Your task to perform on an android device: Go to CNN.com Image 0: 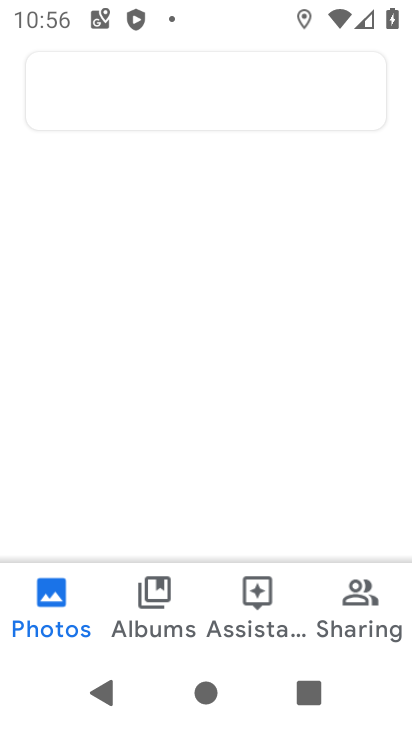
Step 0: press home button
Your task to perform on an android device: Go to CNN.com Image 1: 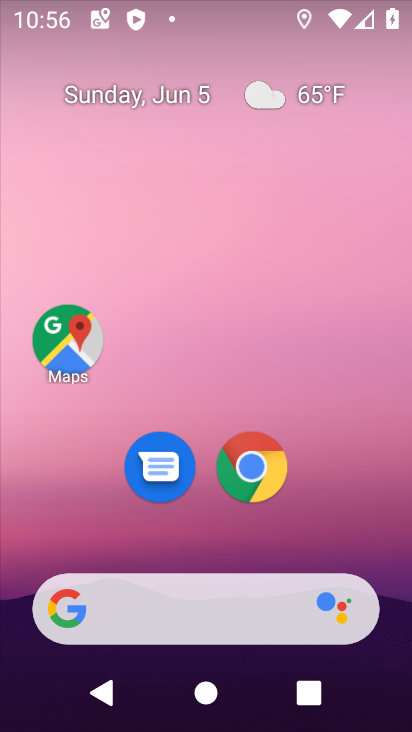
Step 1: drag from (290, 542) to (353, 168)
Your task to perform on an android device: Go to CNN.com Image 2: 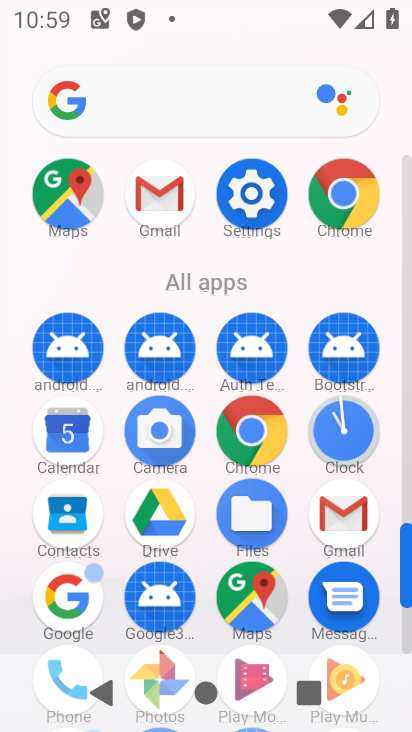
Step 2: click (251, 427)
Your task to perform on an android device: Go to CNN.com Image 3: 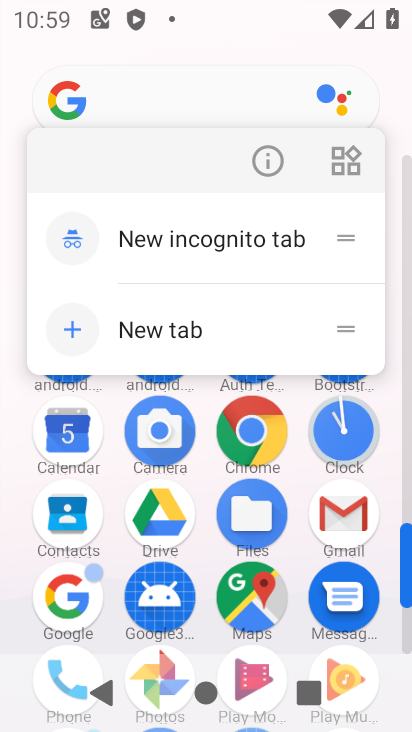
Step 3: click (256, 98)
Your task to perform on an android device: Go to CNN.com Image 4: 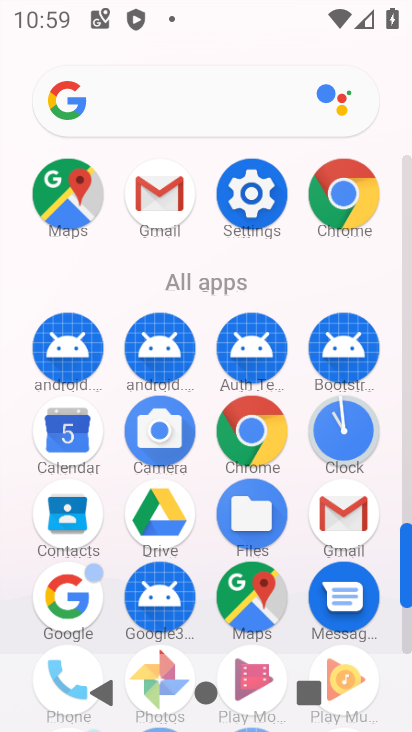
Step 4: click (321, 209)
Your task to perform on an android device: Go to CNN.com Image 5: 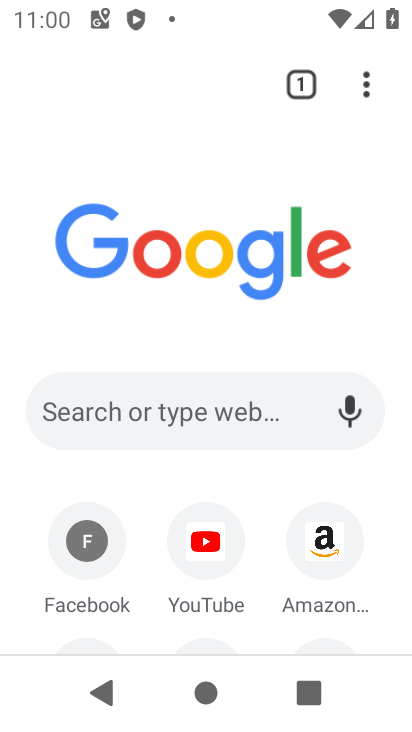
Step 5: click (128, 427)
Your task to perform on an android device: Go to CNN.com Image 6: 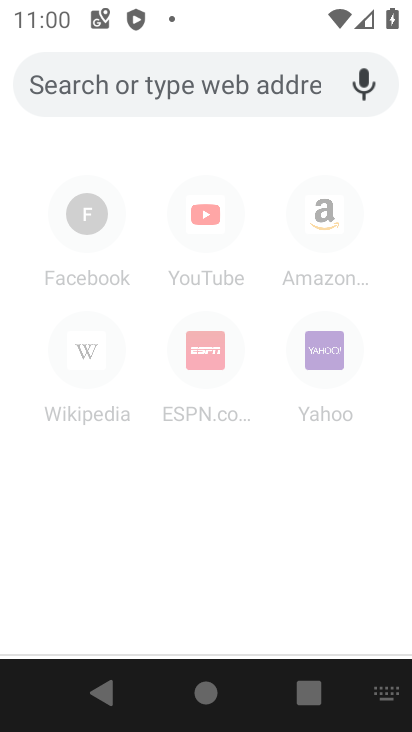
Step 6: click (148, 413)
Your task to perform on an android device: Go to CNN.com Image 7: 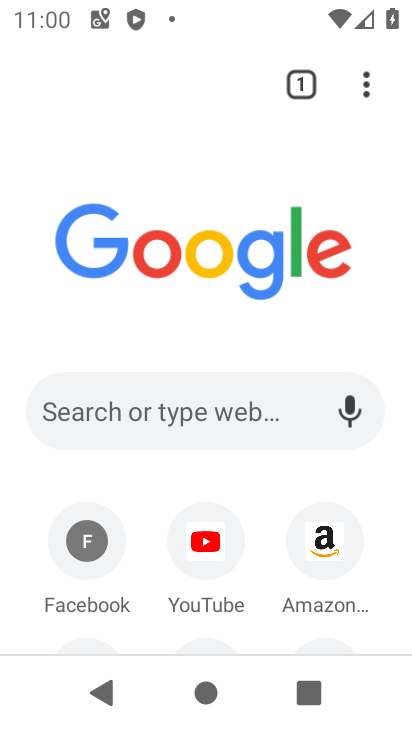
Step 7: click (231, 411)
Your task to perform on an android device: Go to CNN.com Image 8: 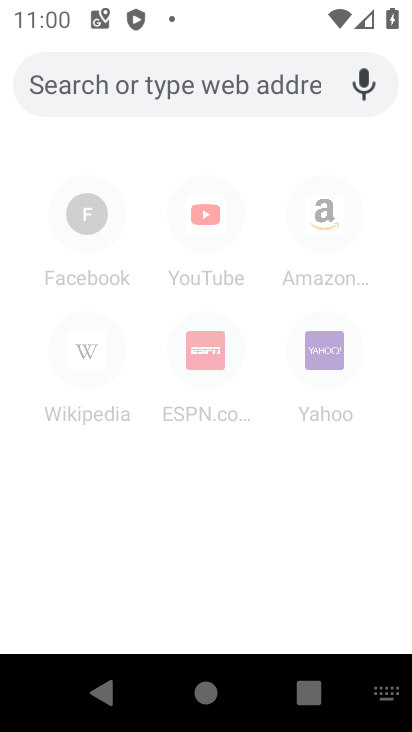
Step 8: type " CNN.com"
Your task to perform on an android device: Go to CNN.com Image 9: 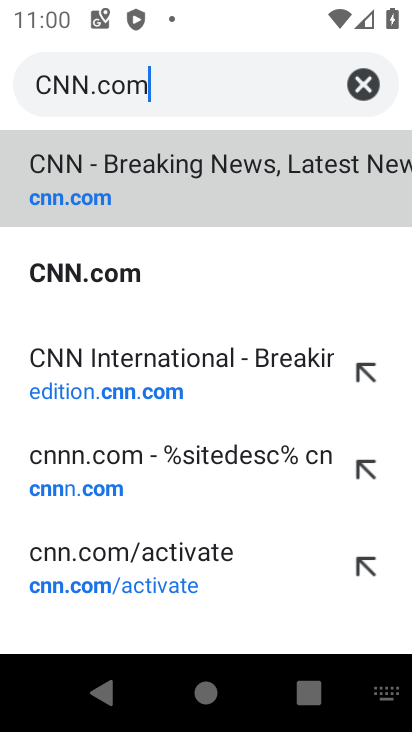
Step 9: type ""
Your task to perform on an android device: Go to CNN.com Image 10: 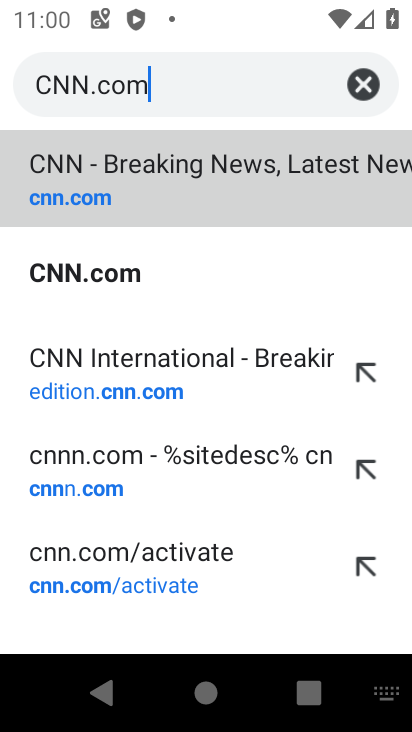
Step 10: click (144, 167)
Your task to perform on an android device: Go to CNN.com Image 11: 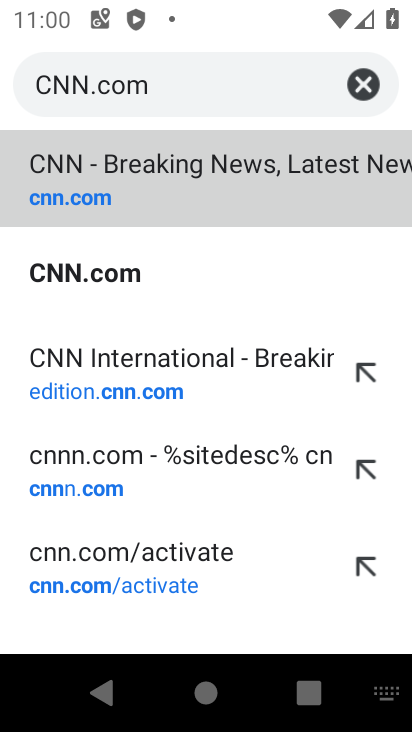
Step 11: click (169, 198)
Your task to perform on an android device: Go to CNN.com Image 12: 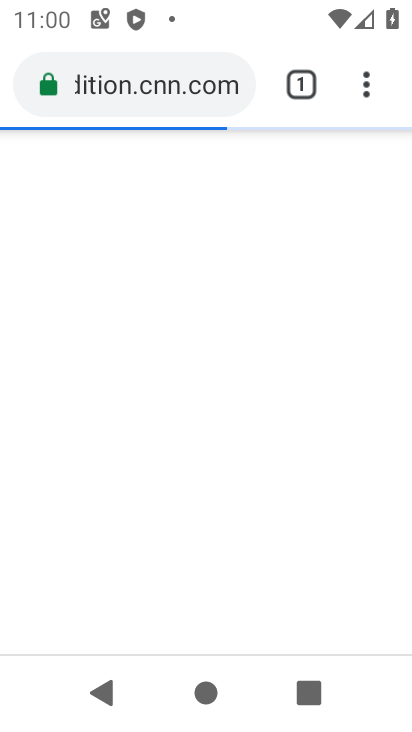
Step 12: task complete